Your task to perform on an android device: turn off wifi Image 0: 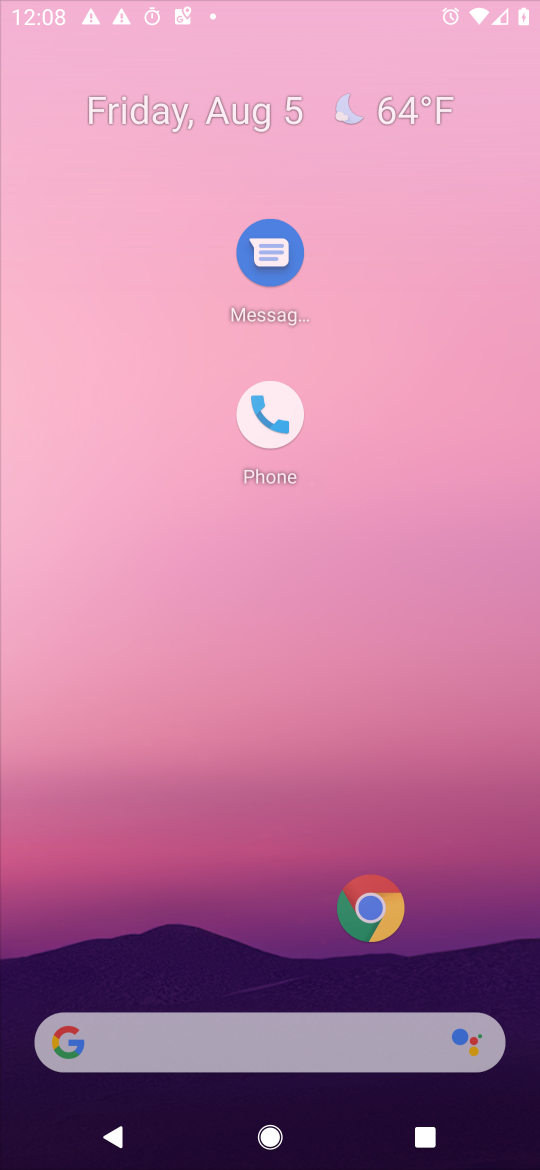
Step 0: drag from (516, 662) to (538, 62)
Your task to perform on an android device: turn off wifi Image 1: 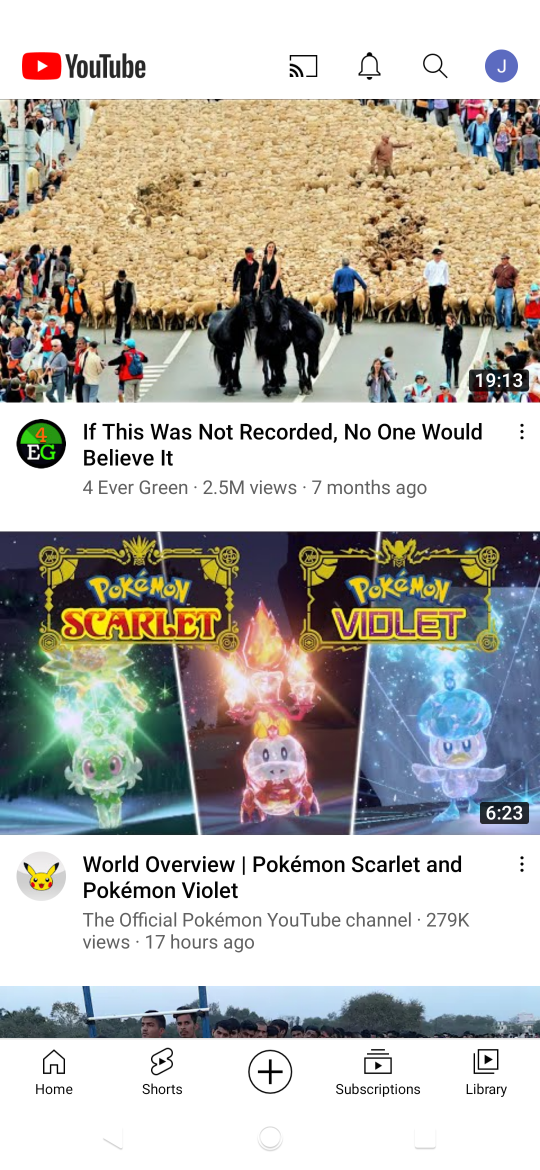
Step 1: drag from (266, 735) to (367, 306)
Your task to perform on an android device: turn off wifi Image 2: 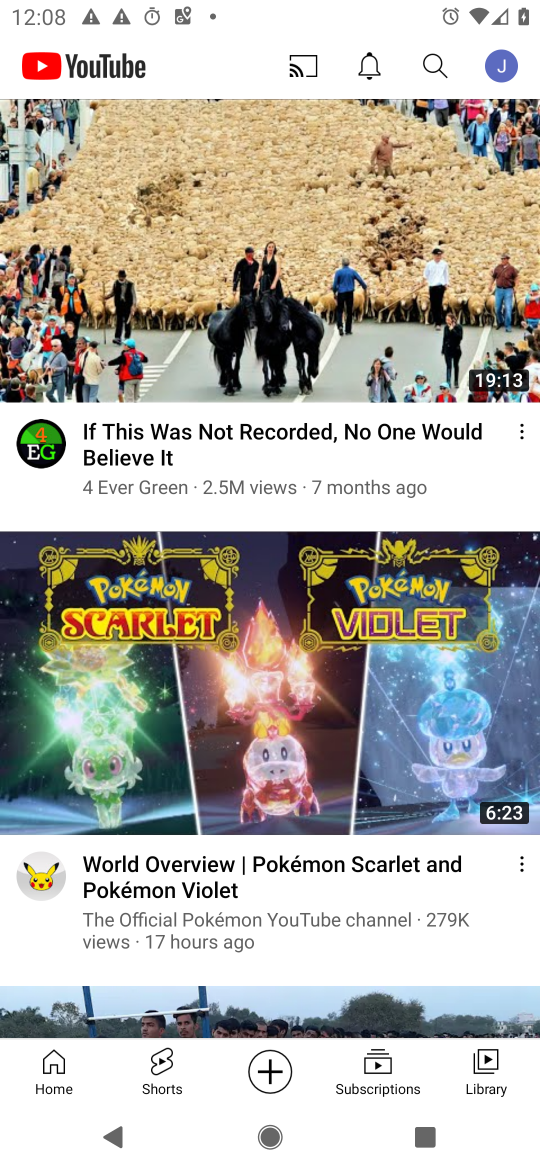
Step 2: press home button
Your task to perform on an android device: turn off wifi Image 3: 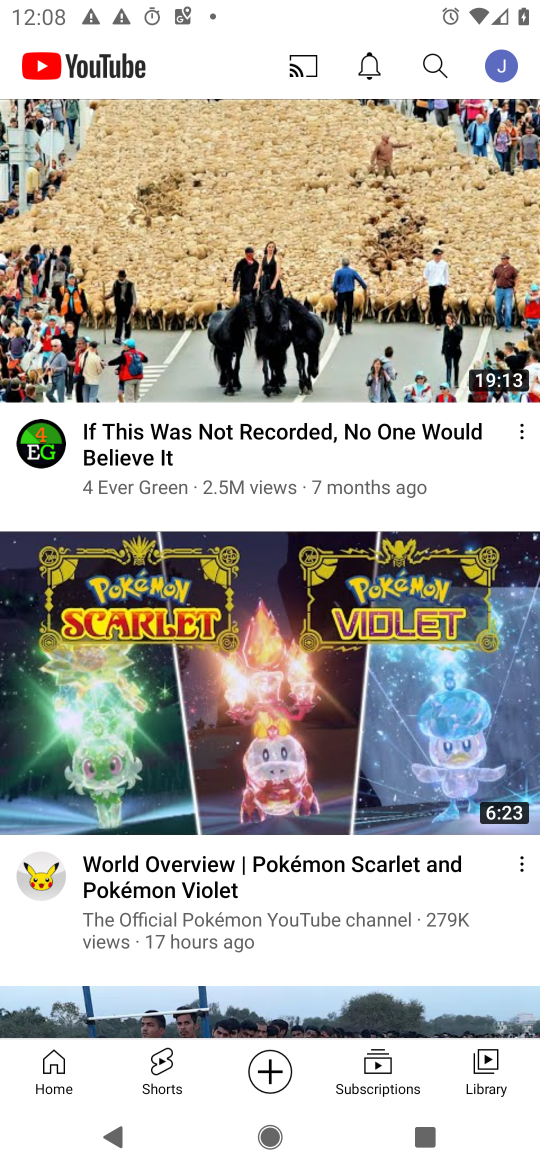
Step 3: click (299, 424)
Your task to perform on an android device: turn off wifi Image 4: 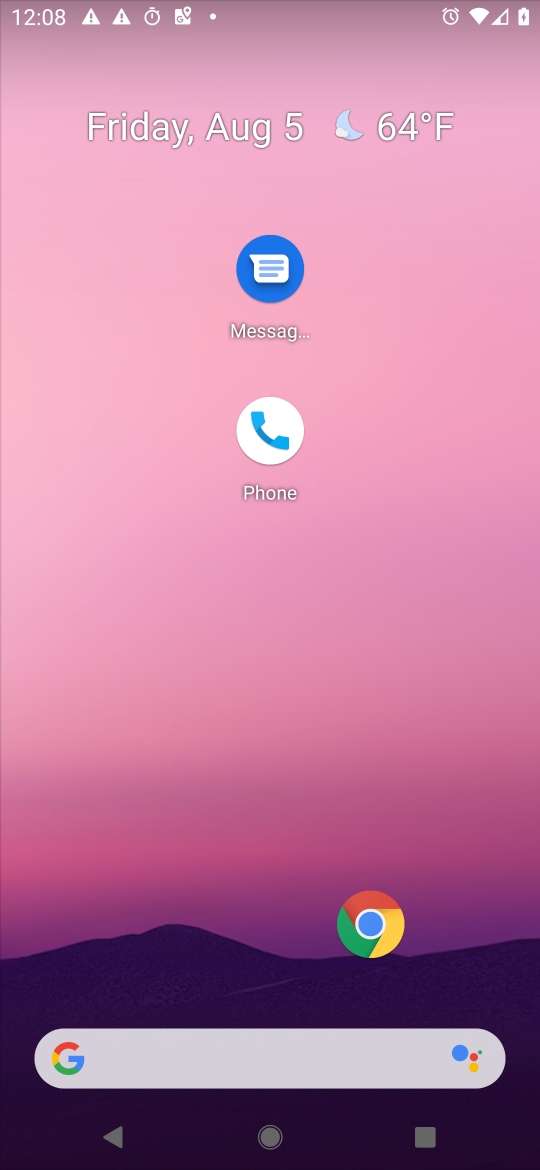
Step 4: click (370, 127)
Your task to perform on an android device: turn off wifi Image 5: 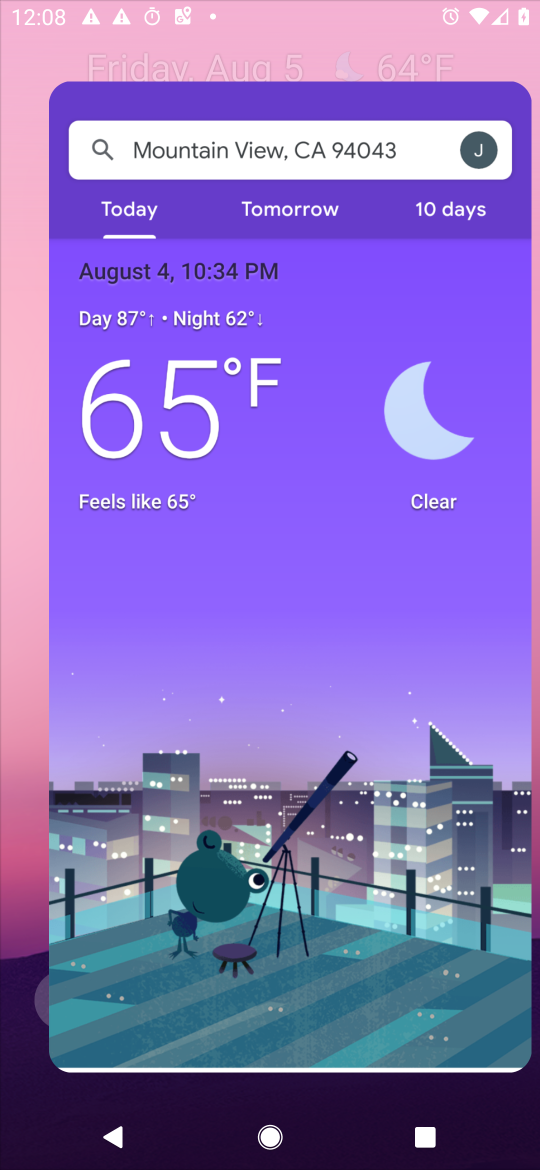
Step 5: drag from (283, 929) to (365, 260)
Your task to perform on an android device: turn off wifi Image 6: 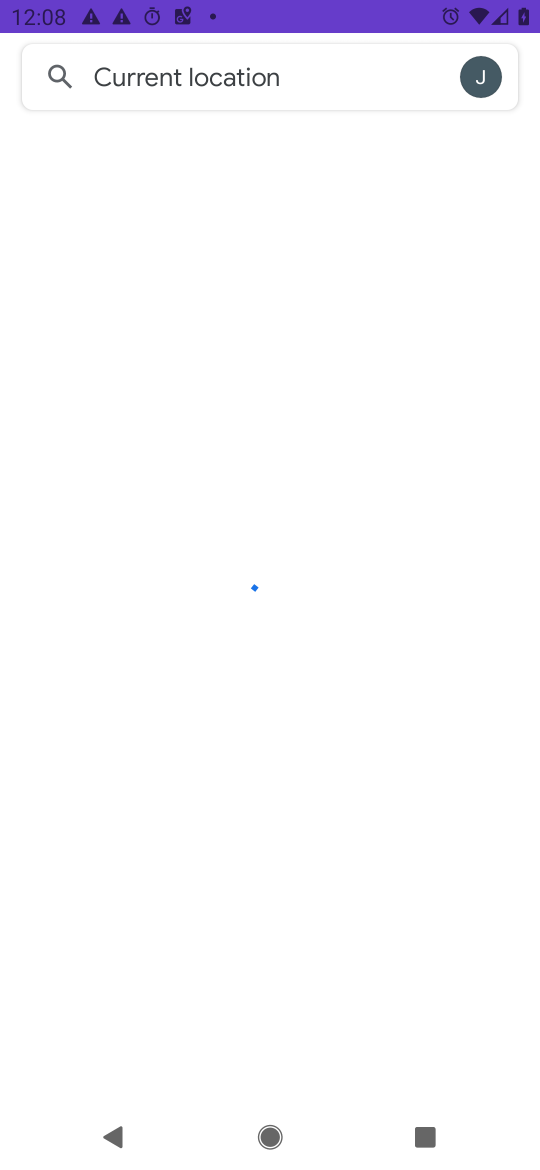
Step 6: press home button
Your task to perform on an android device: turn off wifi Image 7: 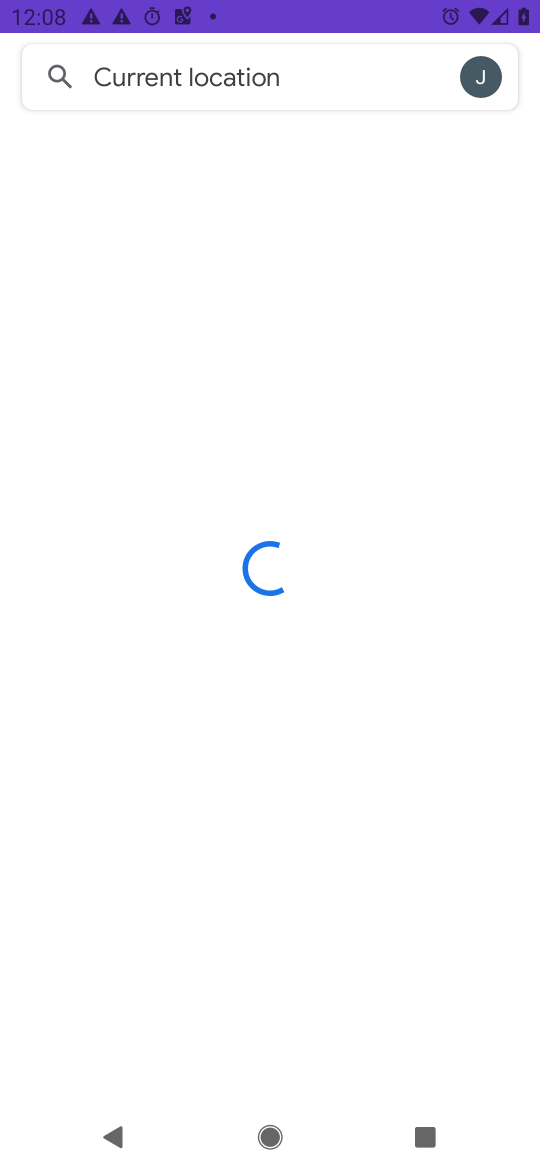
Step 7: press home button
Your task to perform on an android device: turn off wifi Image 8: 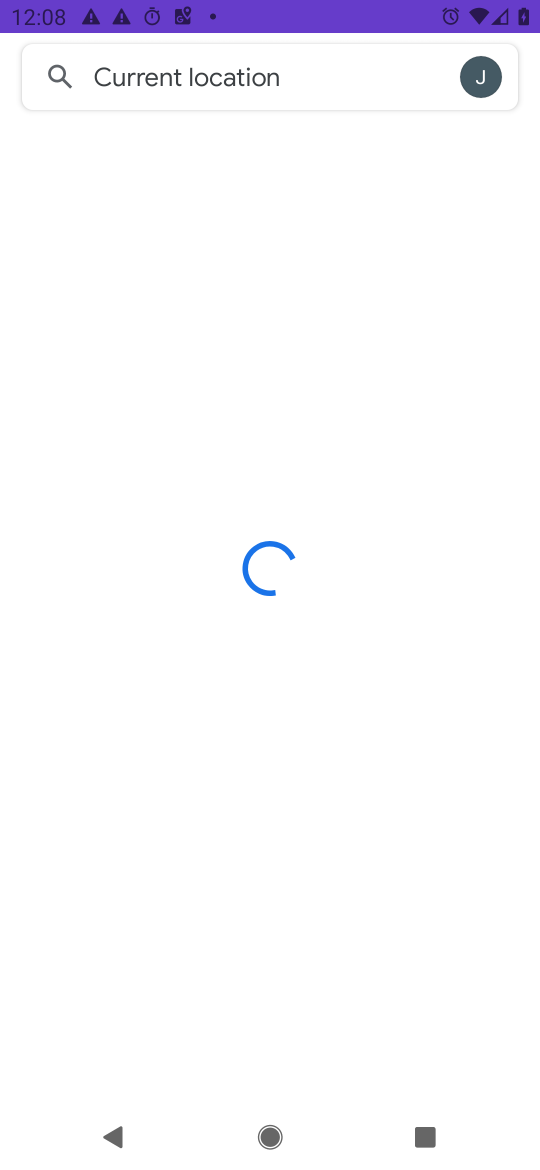
Step 8: click (391, 98)
Your task to perform on an android device: turn off wifi Image 9: 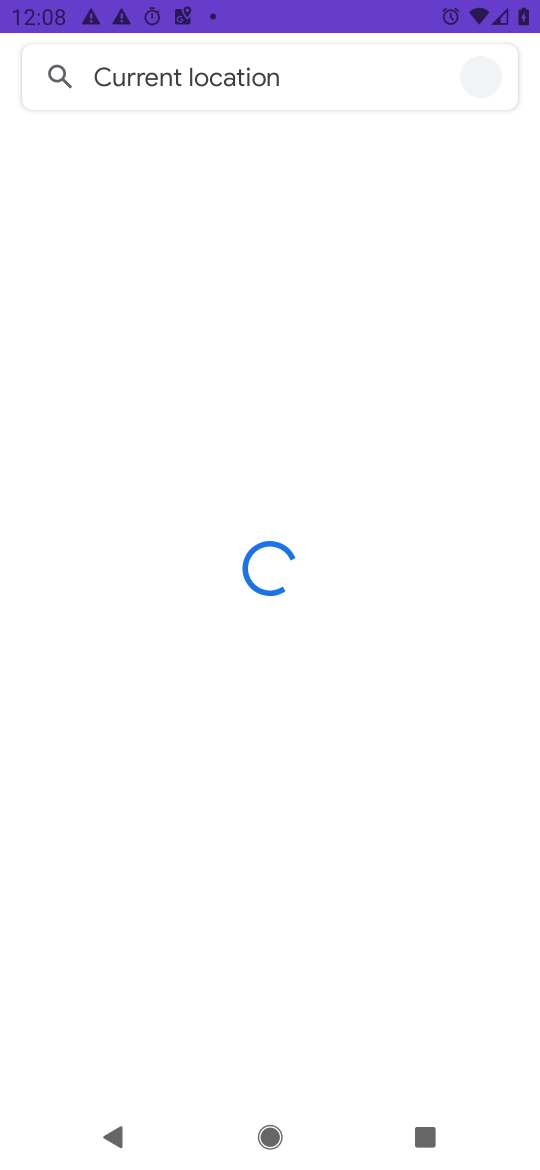
Step 9: drag from (269, 915) to (379, 274)
Your task to perform on an android device: turn off wifi Image 10: 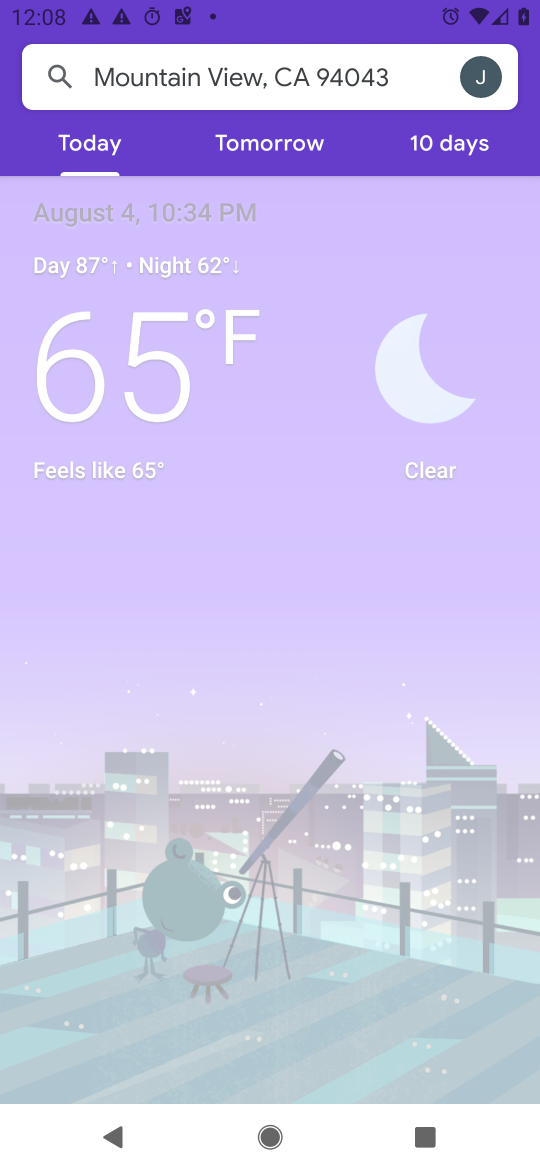
Step 10: press home button
Your task to perform on an android device: turn off wifi Image 11: 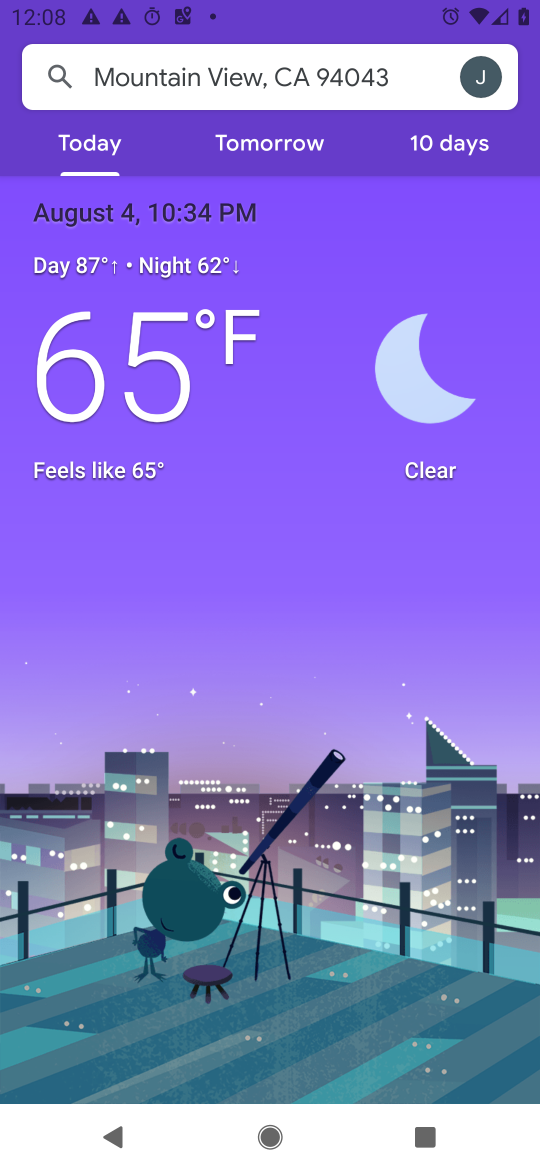
Step 11: drag from (272, 573) to (340, 230)
Your task to perform on an android device: turn off wifi Image 12: 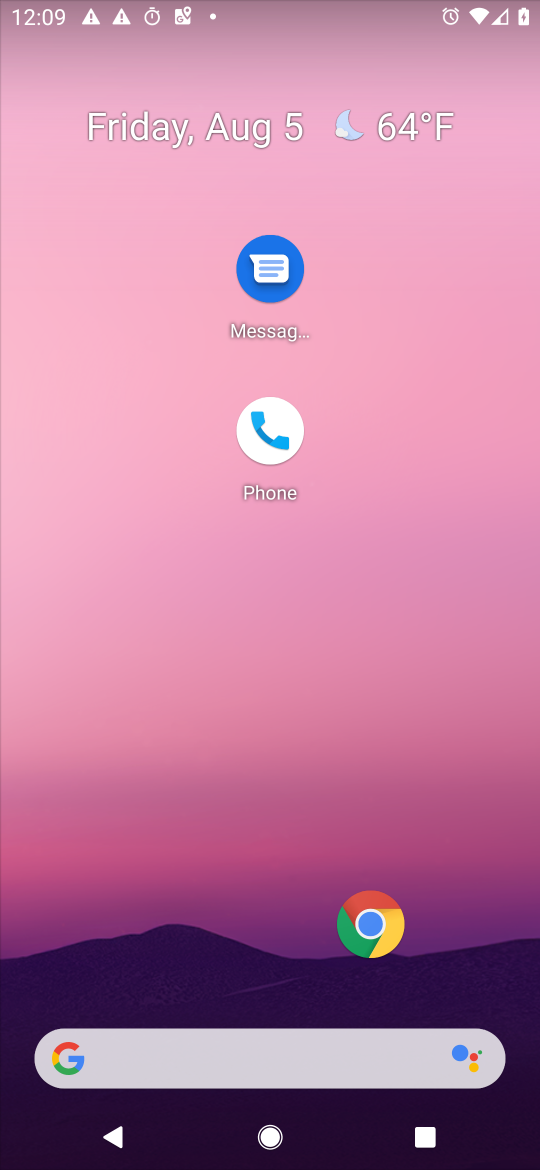
Step 12: drag from (240, 967) to (361, 24)
Your task to perform on an android device: turn off wifi Image 13: 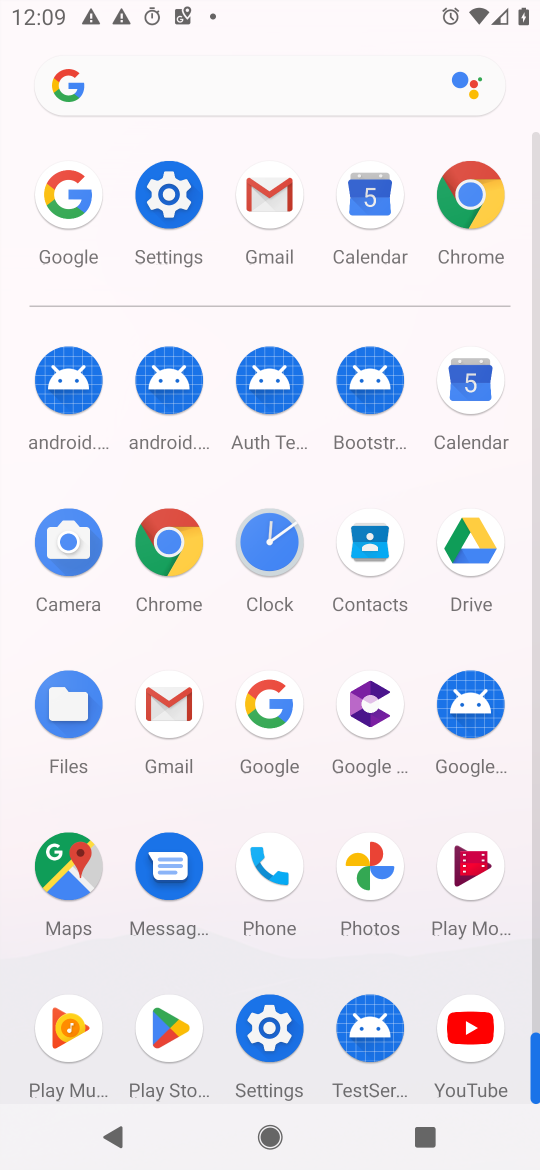
Step 13: click (165, 187)
Your task to perform on an android device: turn off wifi Image 14: 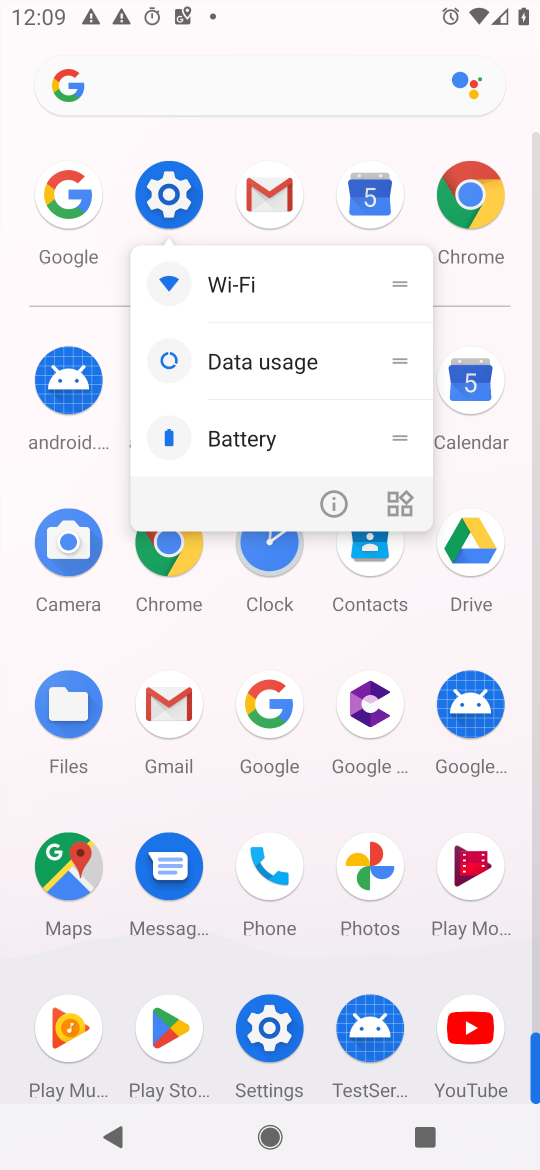
Step 14: click (329, 499)
Your task to perform on an android device: turn off wifi Image 15: 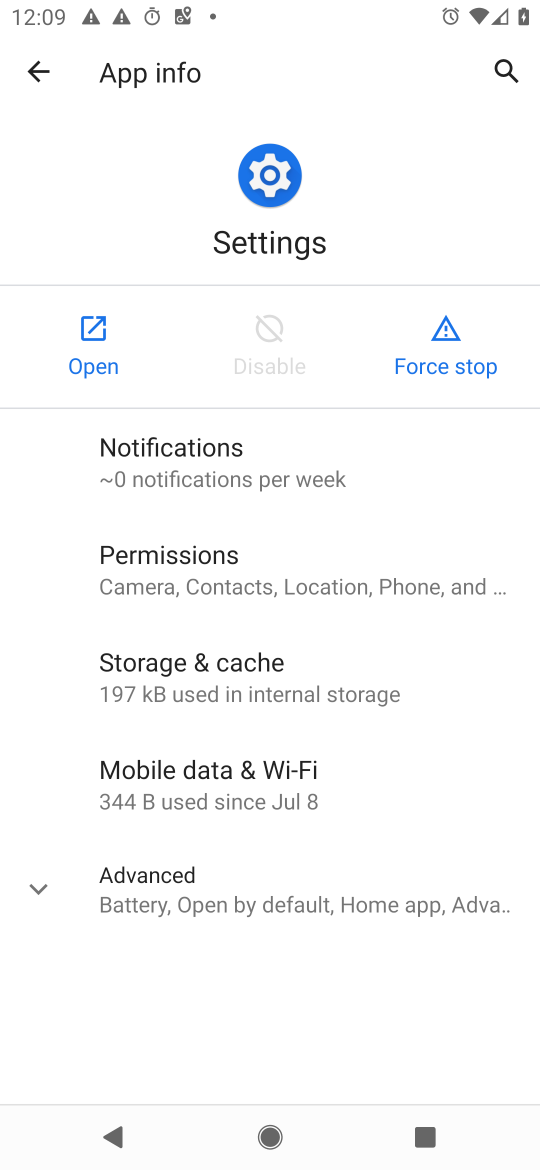
Step 15: click (94, 323)
Your task to perform on an android device: turn off wifi Image 16: 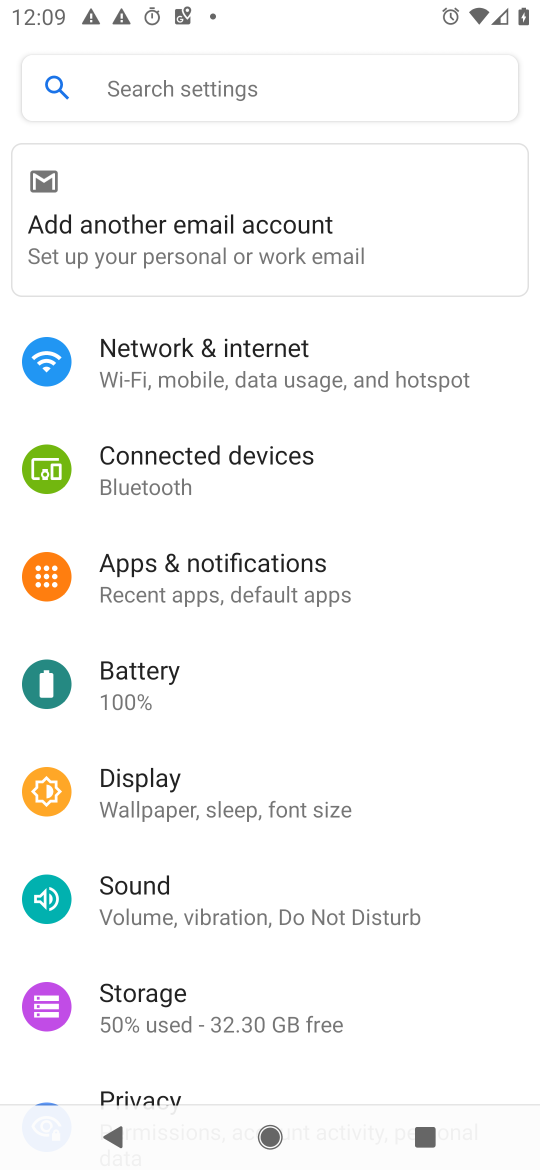
Step 16: click (184, 366)
Your task to perform on an android device: turn off wifi Image 17: 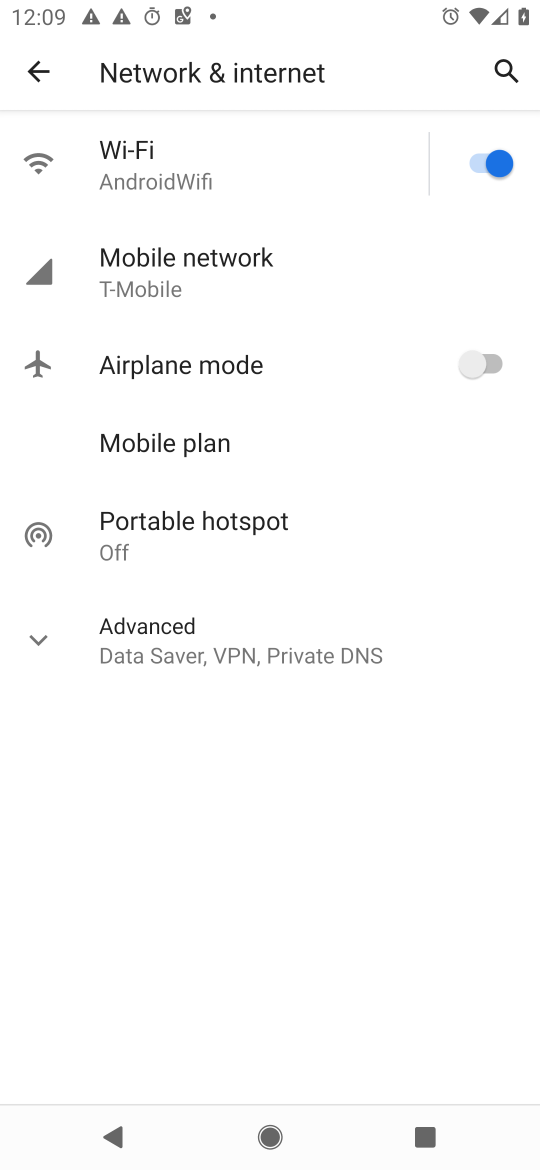
Step 17: click (201, 134)
Your task to perform on an android device: turn off wifi Image 18: 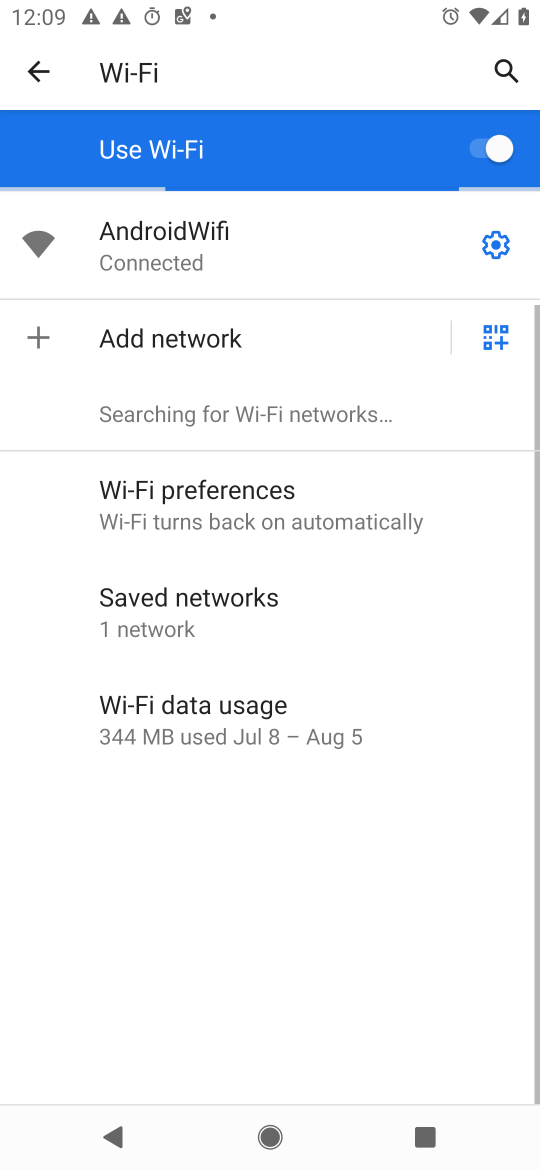
Step 18: click (490, 151)
Your task to perform on an android device: turn off wifi Image 19: 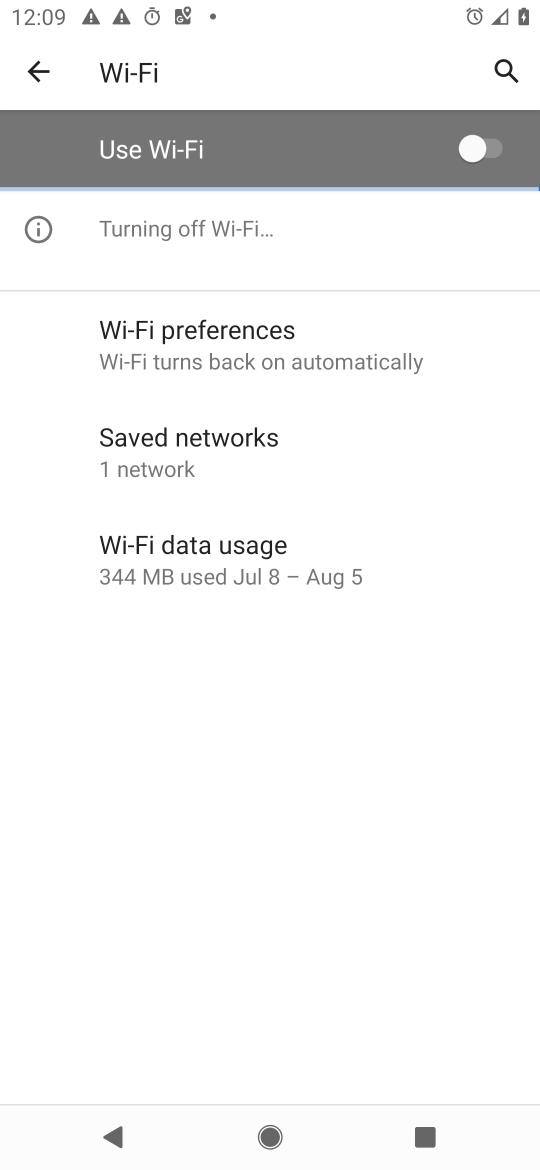
Step 19: task complete